Your task to perform on an android device: delete the emails in spam in the gmail app Image 0: 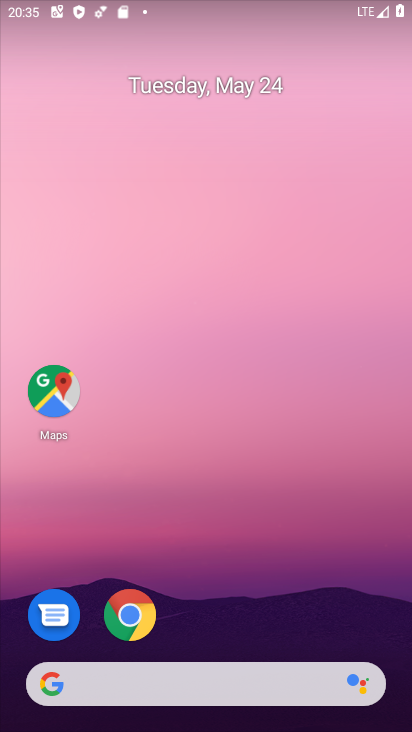
Step 0: drag from (233, 516) to (285, 110)
Your task to perform on an android device: delete the emails in spam in the gmail app Image 1: 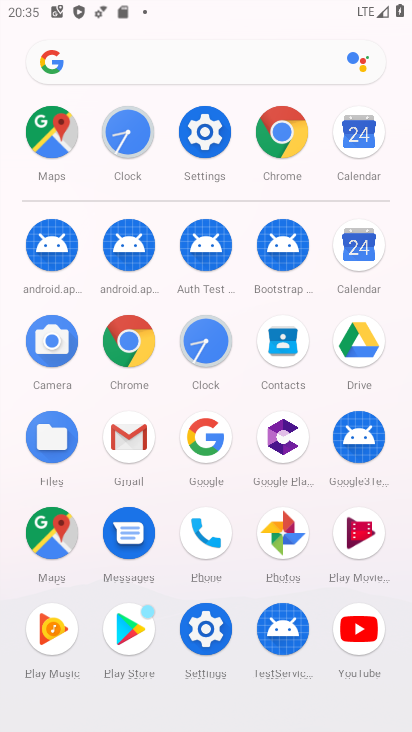
Step 1: click (118, 434)
Your task to perform on an android device: delete the emails in spam in the gmail app Image 2: 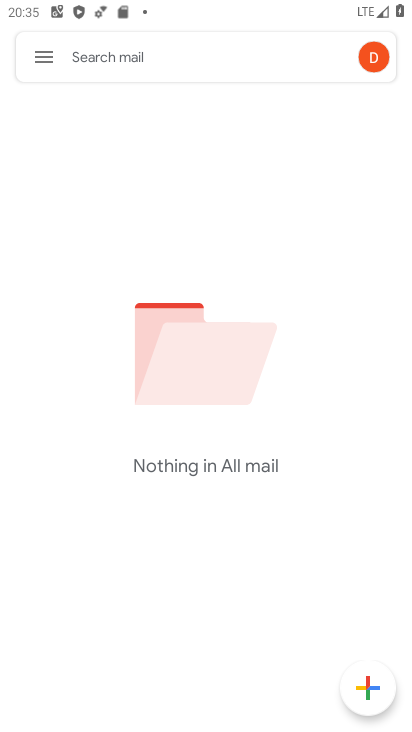
Step 2: click (38, 57)
Your task to perform on an android device: delete the emails in spam in the gmail app Image 3: 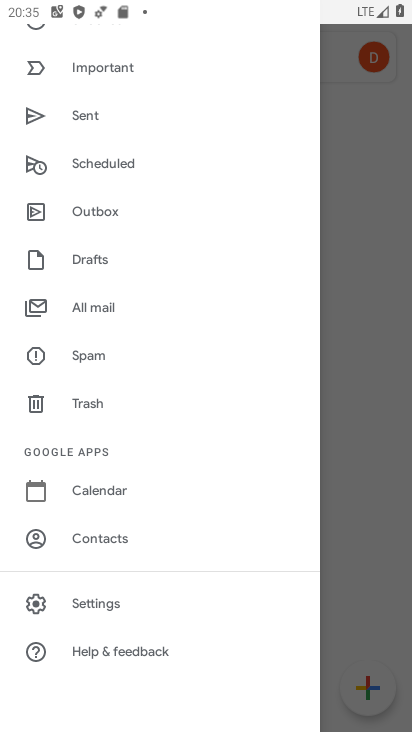
Step 3: drag from (184, 112) to (186, 342)
Your task to perform on an android device: delete the emails in spam in the gmail app Image 4: 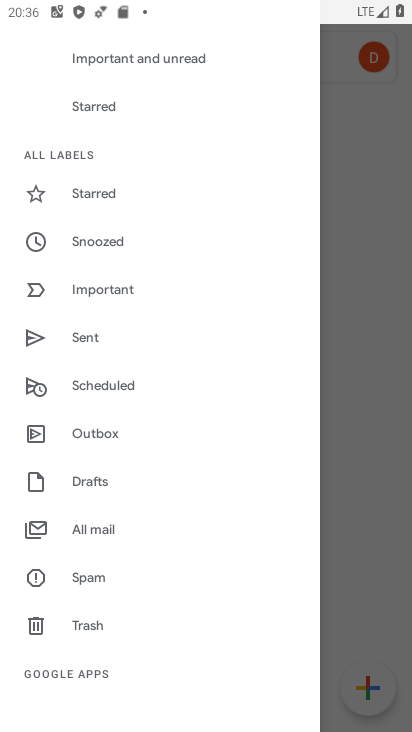
Step 4: drag from (150, 145) to (165, 267)
Your task to perform on an android device: delete the emails in spam in the gmail app Image 5: 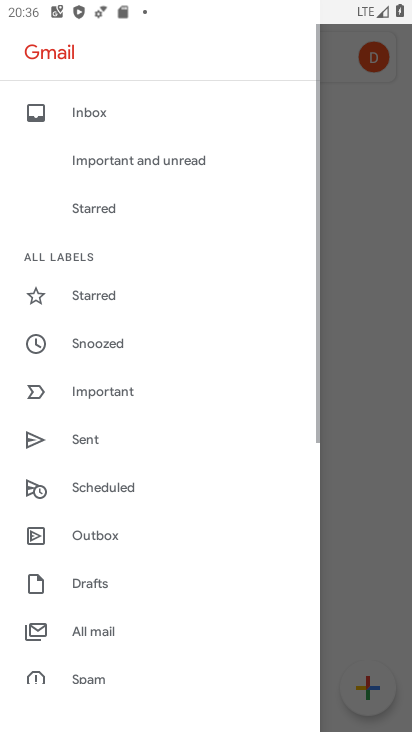
Step 5: drag from (165, 271) to (195, 130)
Your task to perform on an android device: delete the emails in spam in the gmail app Image 6: 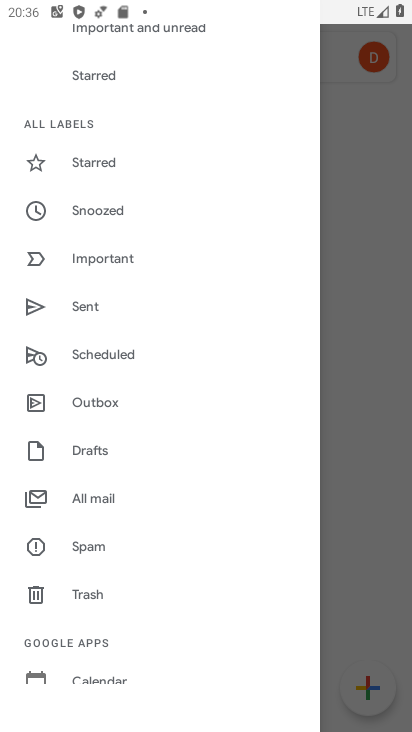
Step 6: click (93, 541)
Your task to perform on an android device: delete the emails in spam in the gmail app Image 7: 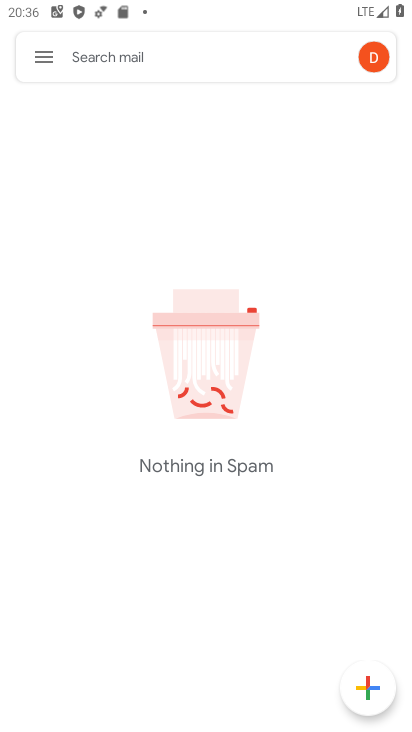
Step 7: task complete